Your task to perform on an android device: open app "The Home Depot" Image 0: 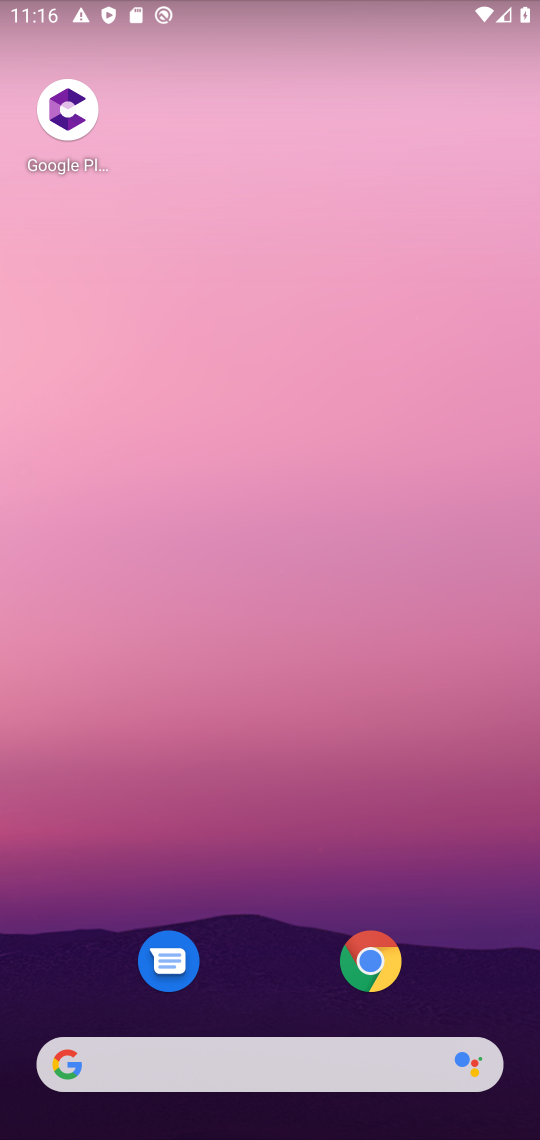
Step 0: drag from (465, 820) to (446, 98)
Your task to perform on an android device: open app "The Home Depot" Image 1: 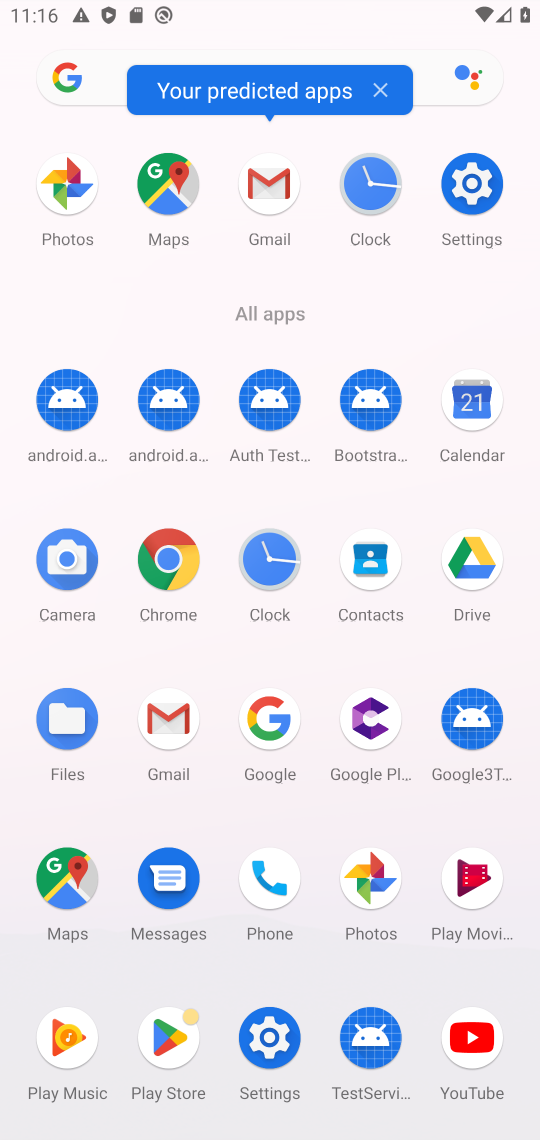
Step 1: click (168, 1032)
Your task to perform on an android device: open app "The Home Depot" Image 2: 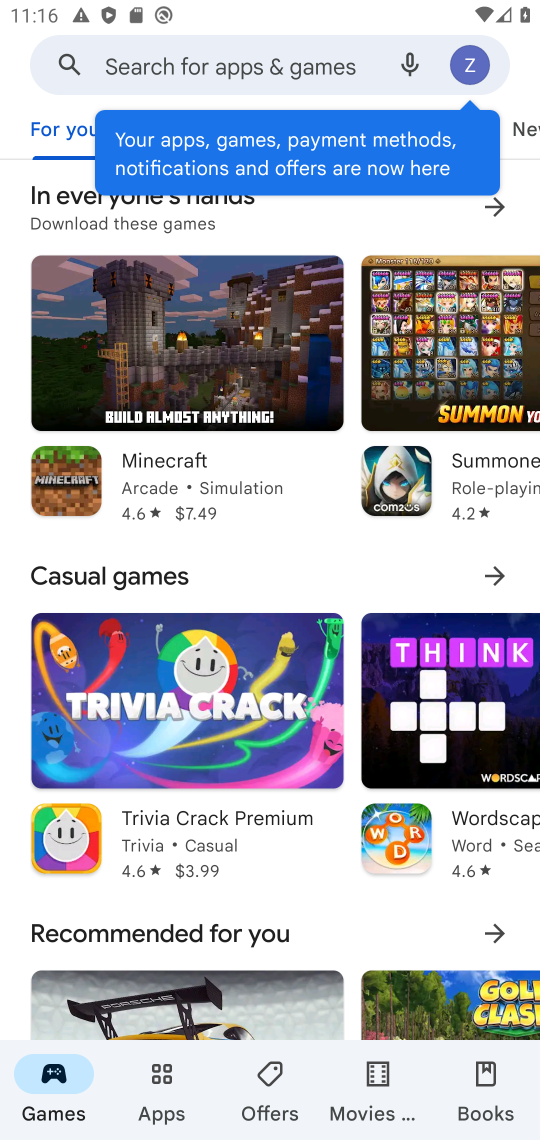
Step 2: click (260, 57)
Your task to perform on an android device: open app "The Home Depot" Image 3: 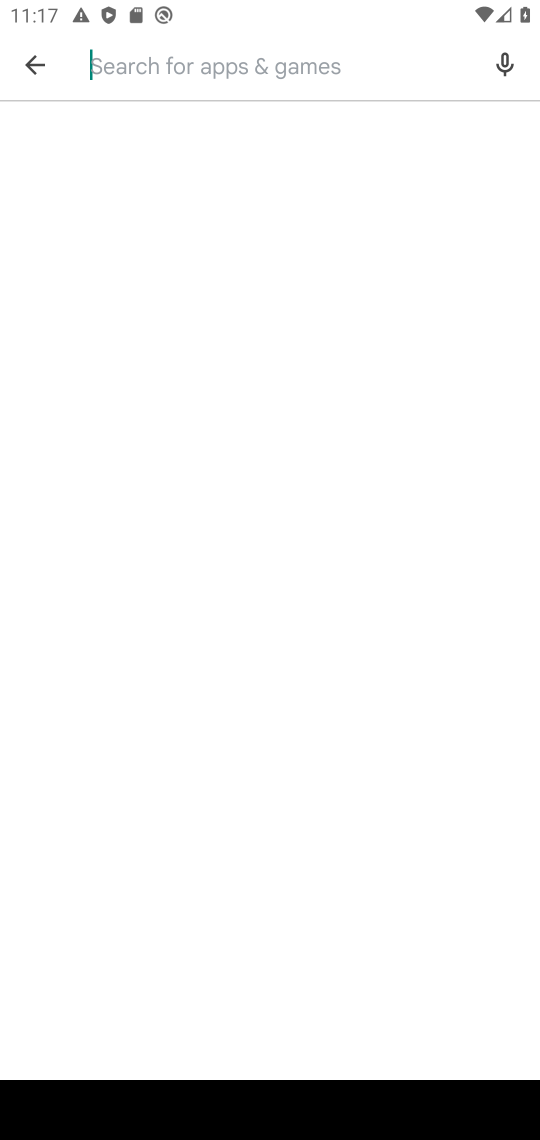
Step 3: type "he Home Depot"
Your task to perform on an android device: open app "The Home Depot" Image 4: 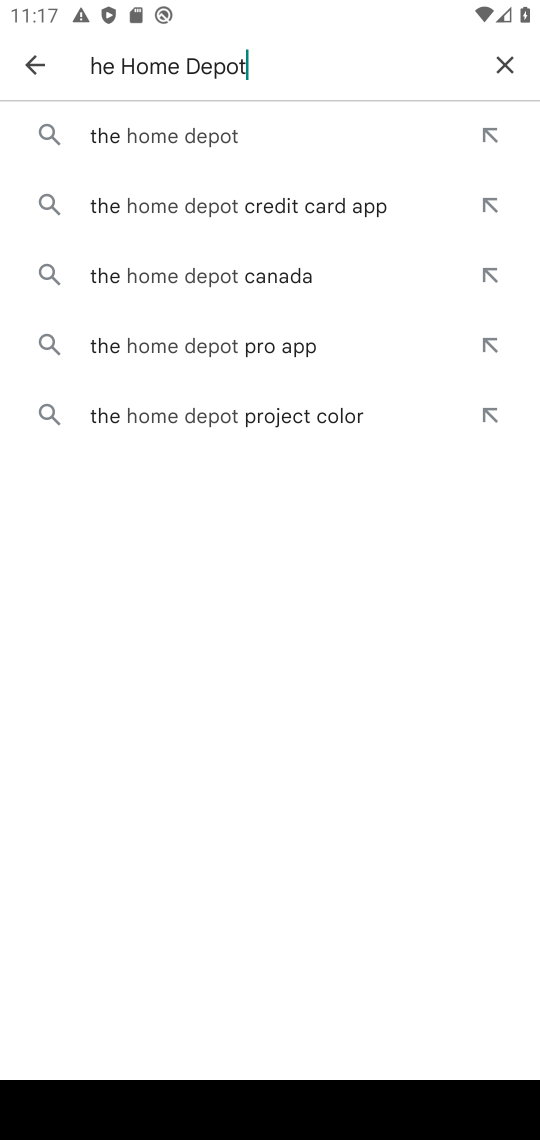
Step 4: click (229, 131)
Your task to perform on an android device: open app "The Home Depot" Image 5: 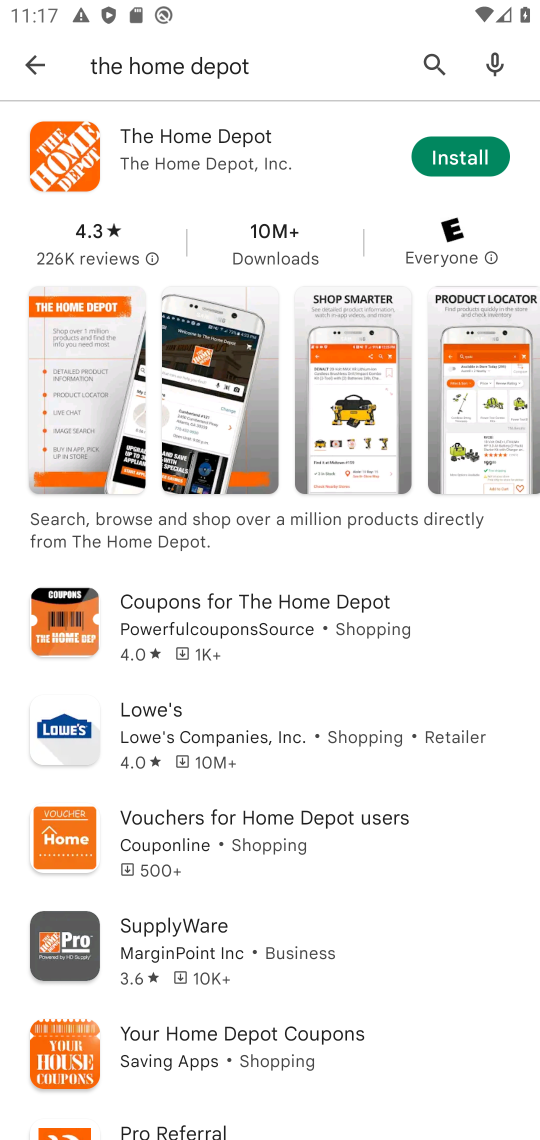
Step 5: task complete